Your task to perform on an android device: What's on my calendar tomorrow? Image 0: 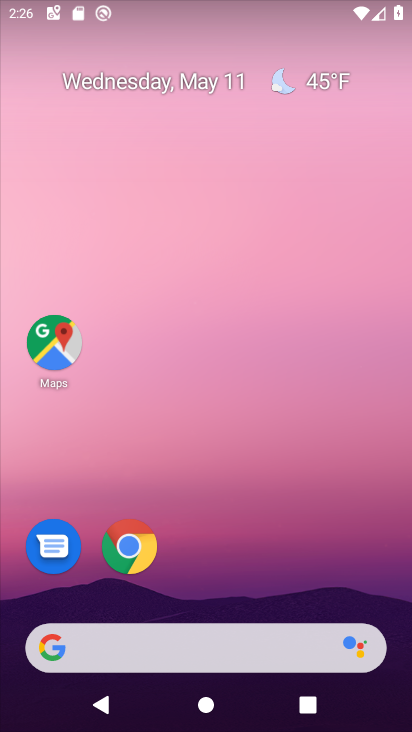
Step 0: drag from (202, 572) to (185, 16)
Your task to perform on an android device: What's on my calendar tomorrow? Image 1: 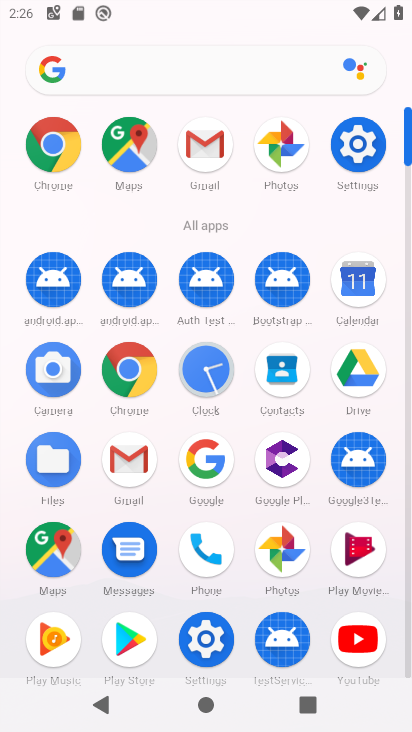
Step 1: click (357, 299)
Your task to perform on an android device: What's on my calendar tomorrow? Image 2: 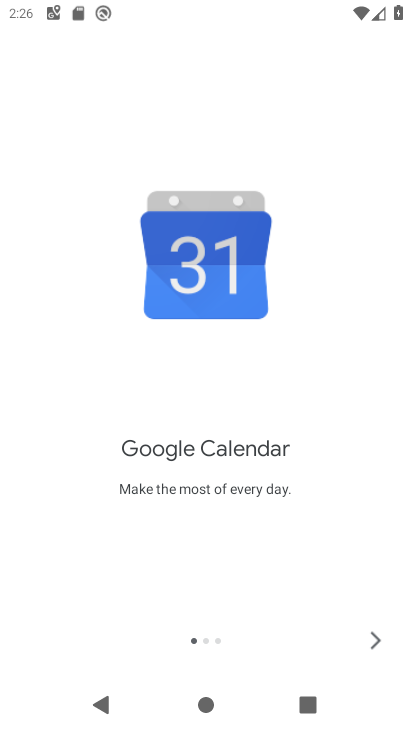
Step 2: click (363, 638)
Your task to perform on an android device: What's on my calendar tomorrow? Image 3: 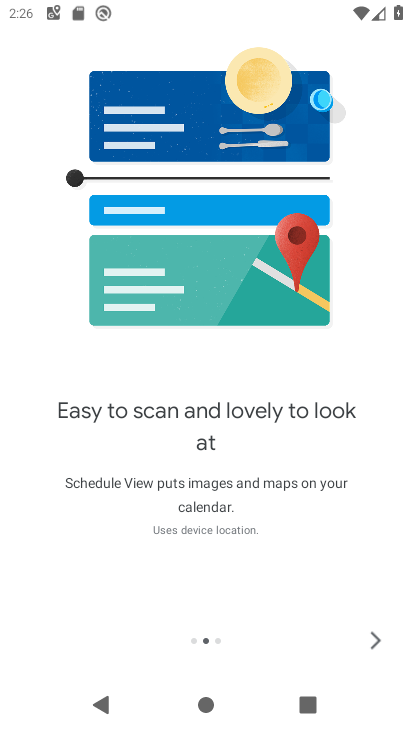
Step 3: click (387, 651)
Your task to perform on an android device: What's on my calendar tomorrow? Image 4: 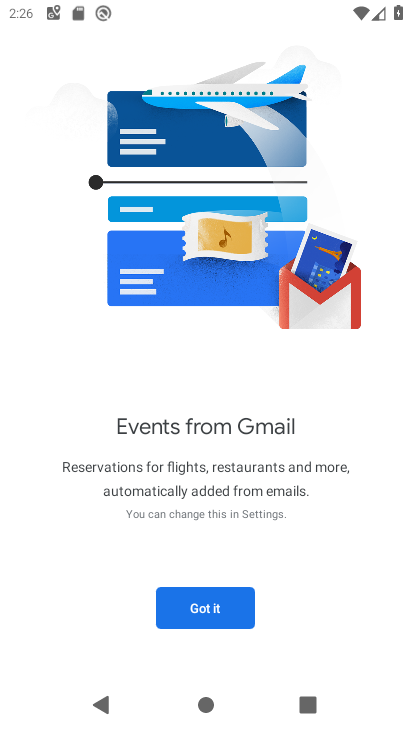
Step 4: click (244, 611)
Your task to perform on an android device: What's on my calendar tomorrow? Image 5: 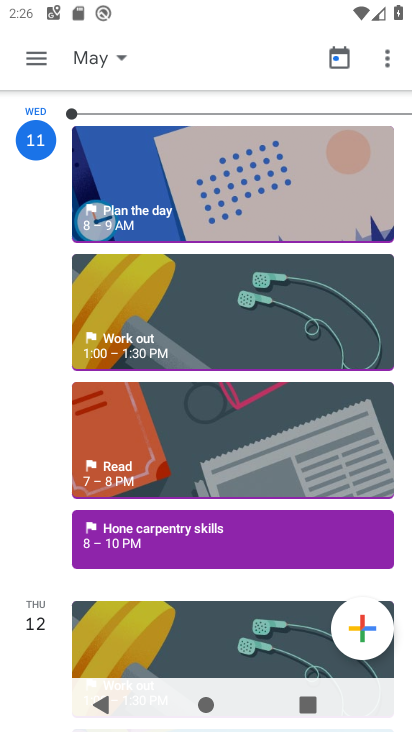
Step 5: click (36, 58)
Your task to perform on an android device: What's on my calendar tomorrow? Image 6: 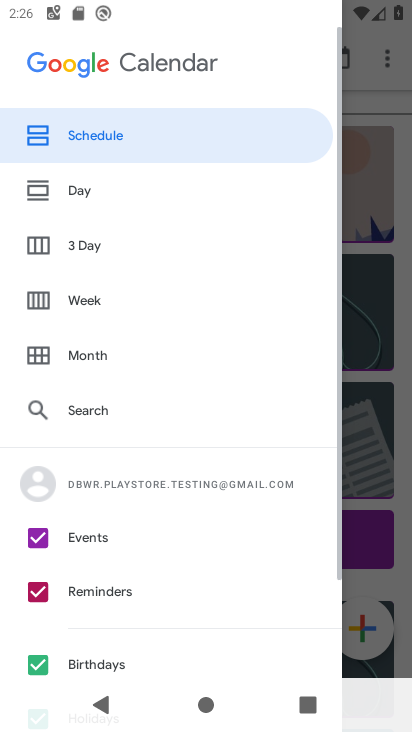
Step 6: click (115, 250)
Your task to perform on an android device: What's on my calendar tomorrow? Image 7: 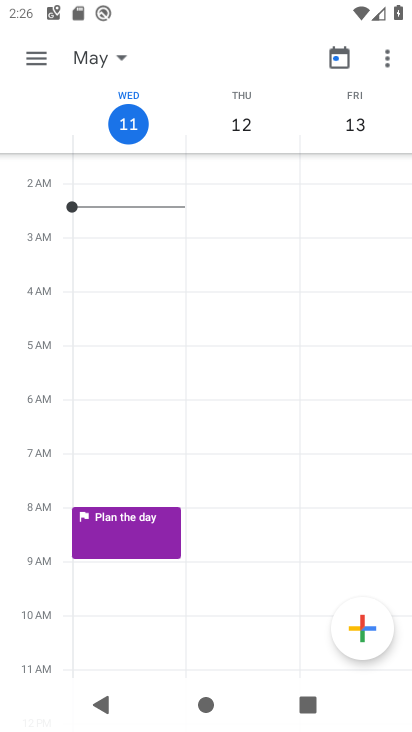
Step 7: task complete